Your task to perform on an android device: What is the news today? Image 0: 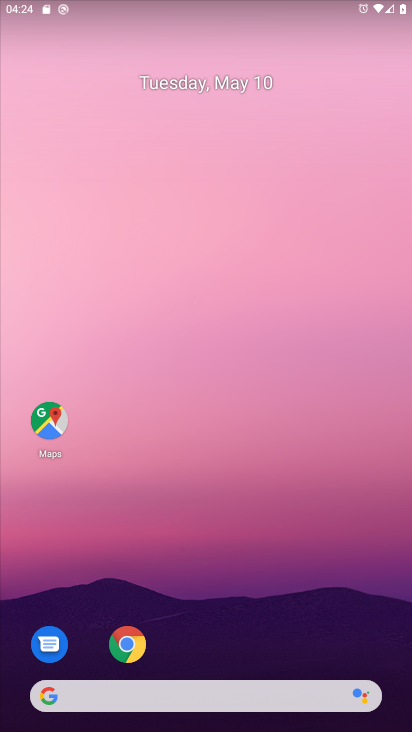
Step 0: drag from (20, 307) to (406, 400)
Your task to perform on an android device: What is the news today? Image 1: 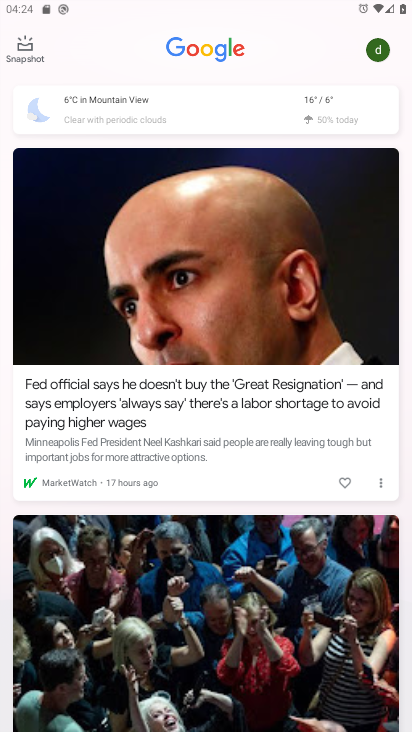
Step 1: task complete